Your task to perform on an android device: open sync settings in chrome Image 0: 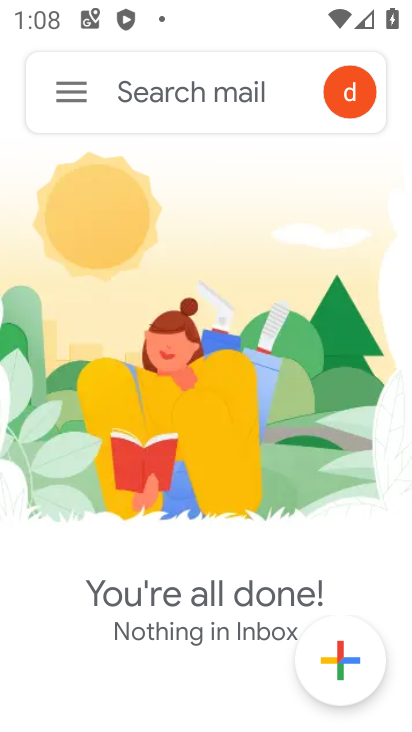
Step 0: press home button
Your task to perform on an android device: open sync settings in chrome Image 1: 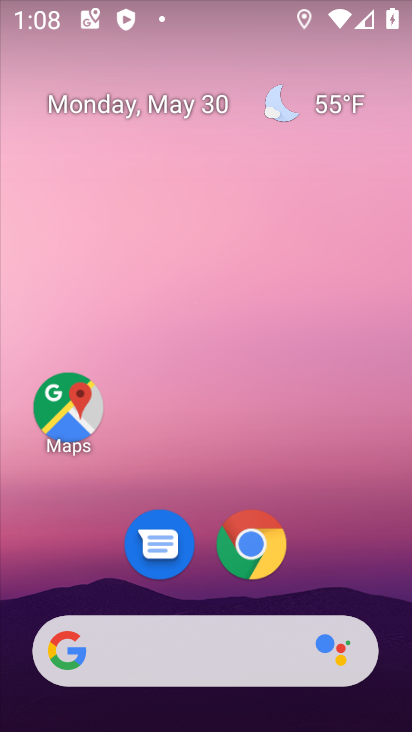
Step 1: click (248, 558)
Your task to perform on an android device: open sync settings in chrome Image 2: 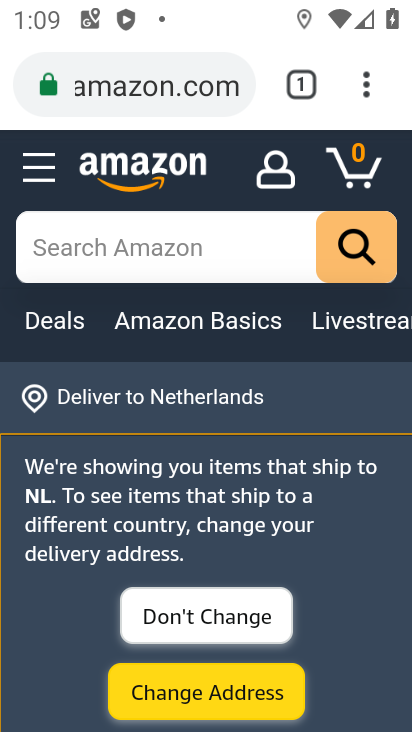
Step 2: click (353, 91)
Your task to perform on an android device: open sync settings in chrome Image 3: 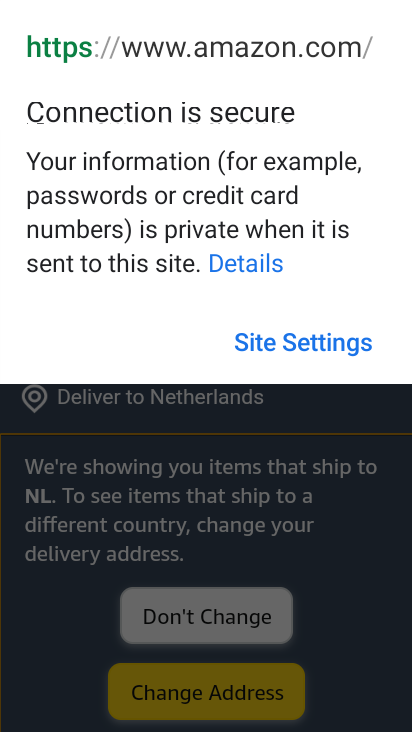
Step 3: click (264, 448)
Your task to perform on an android device: open sync settings in chrome Image 4: 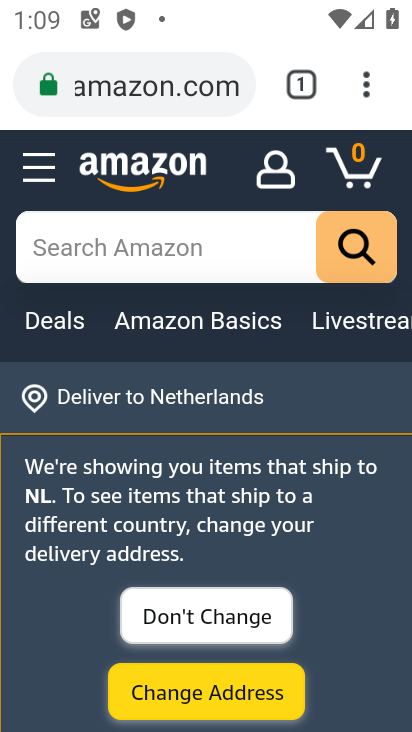
Step 4: click (355, 97)
Your task to perform on an android device: open sync settings in chrome Image 5: 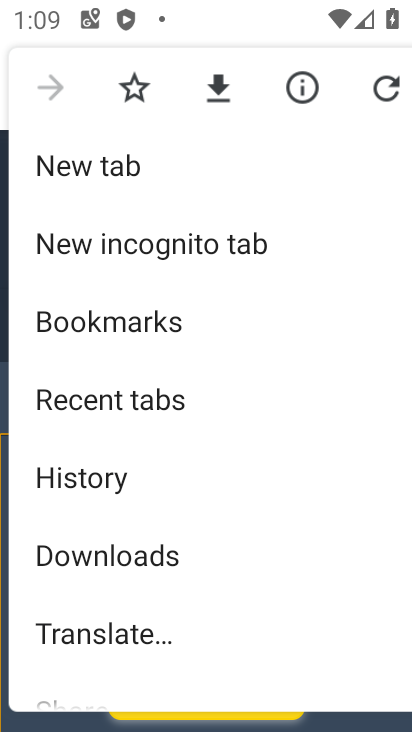
Step 5: drag from (137, 551) to (138, 226)
Your task to perform on an android device: open sync settings in chrome Image 6: 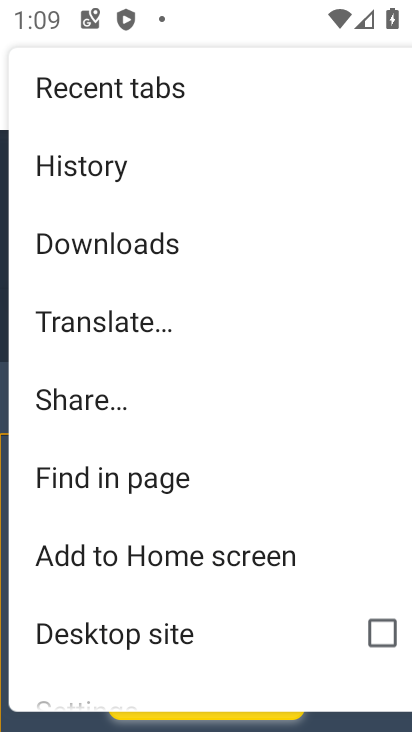
Step 6: drag from (128, 629) to (127, 357)
Your task to perform on an android device: open sync settings in chrome Image 7: 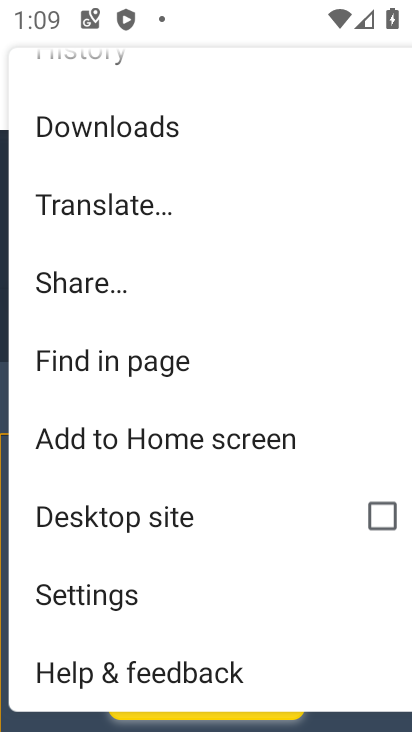
Step 7: click (113, 605)
Your task to perform on an android device: open sync settings in chrome Image 8: 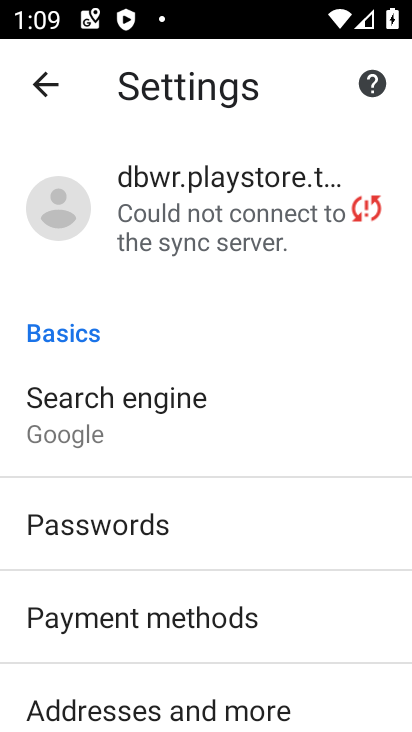
Step 8: drag from (118, 602) to (107, 269)
Your task to perform on an android device: open sync settings in chrome Image 9: 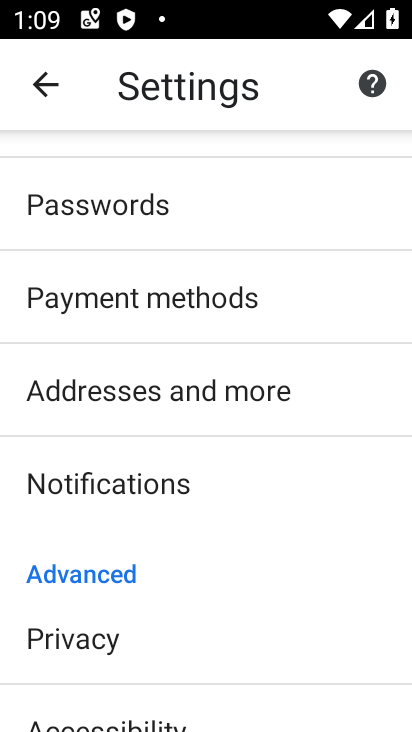
Step 9: drag from (110, 248) to (98, 677)
Your task to perform on an android device: open sync settings in chrome Image 10: 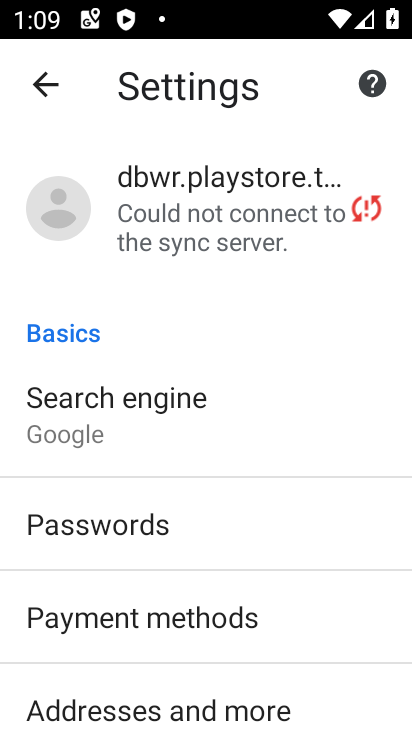
Step 10: click (82, 216)
Your task to perform on an android device: open sync settings in chrome Image 11: 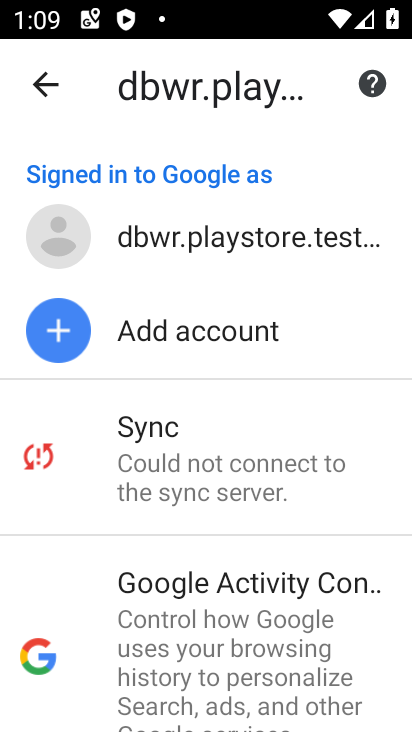
Step 11: click (119, 427)
Your task to perform on an android device: open sync settings in chrome Image 12: 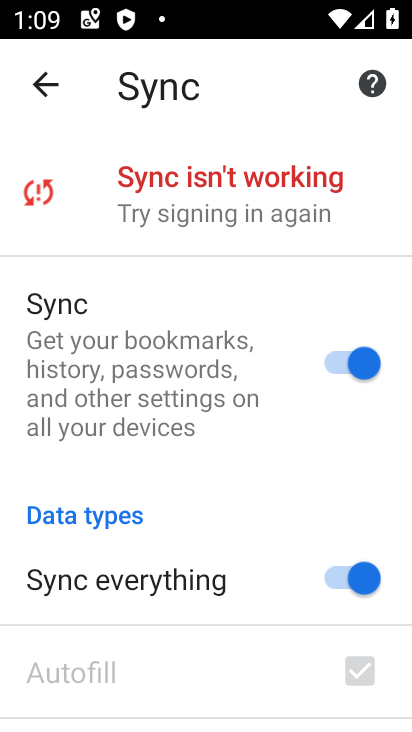
Step 12: task complete